Your task to perform on an android device: Go to Yahoo.com Image 0: 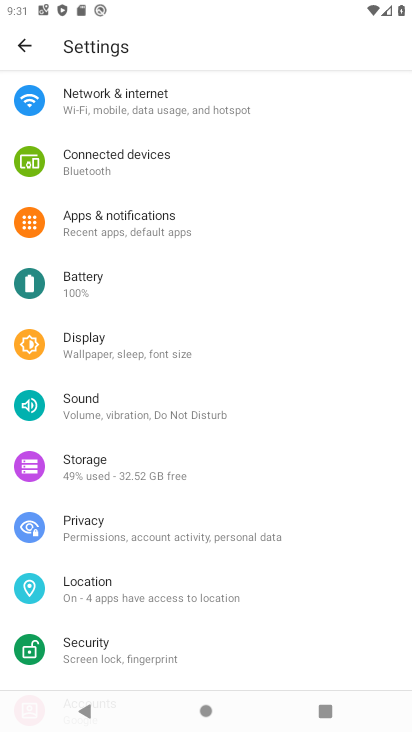
Step 0: press home button
Your task to perform on an android device: Go to Yahoo.com Image 1: 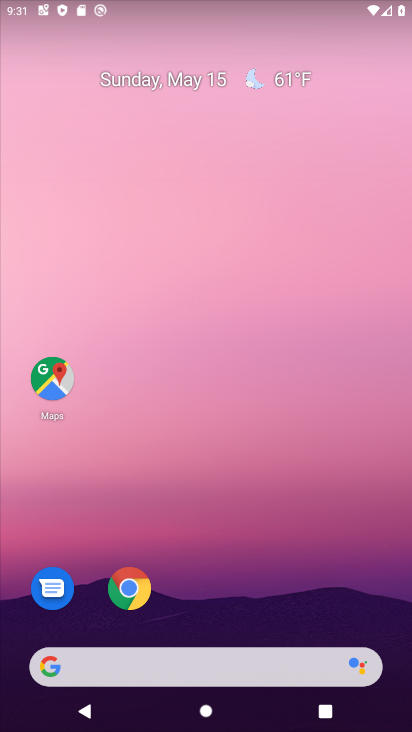
Step 1: click (215, 629)
Your task to perform on an android device: Go to Yahoo.com Image 2: 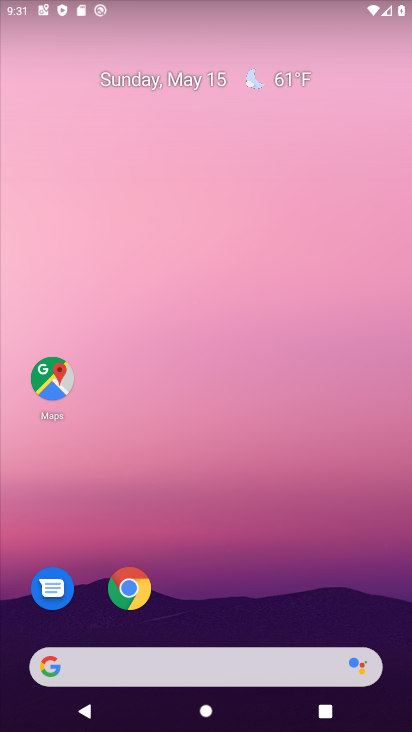
Step 2: click (134, 590)
Your task to perform on an android device: Go to Yahoo.com Image 3: 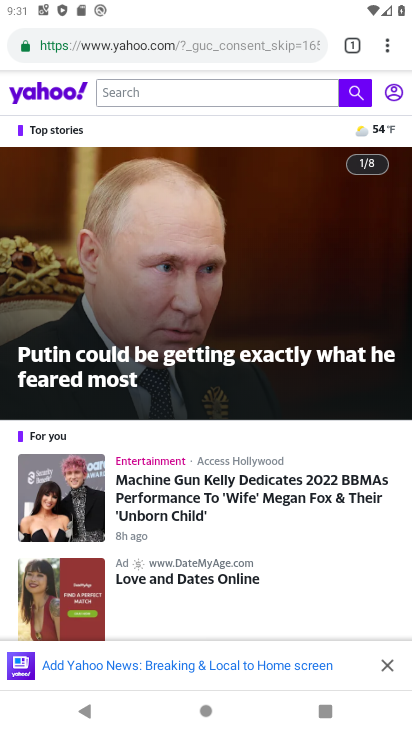
Step 3: task complete